Your task to perform on an android device: see tabs open on other devices in the chrome app Image 0: 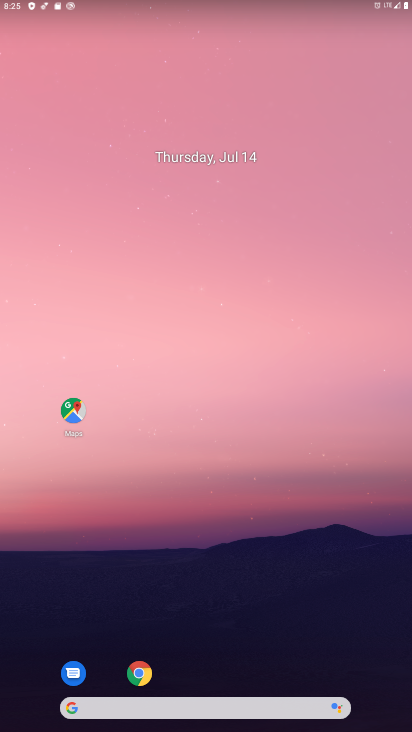
Step 0: click (142, 676)
Your task to perform on an android device: see tabs open on other devices in the chrome app Image 1: 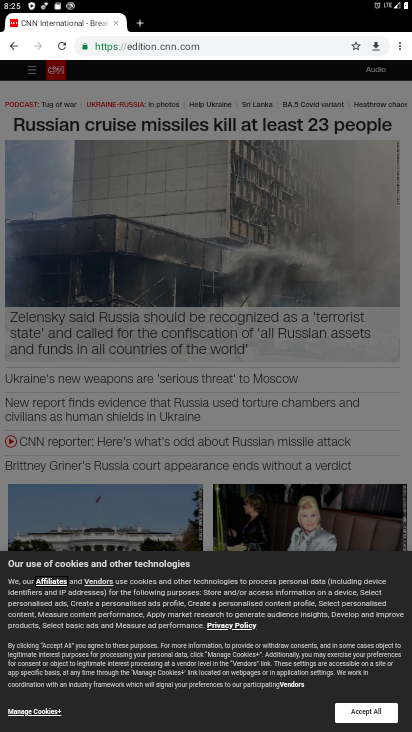
Step 1: click (401, 46)
Your task to perform on an android device: see tabs open on other devices in the chrome app Image 2: 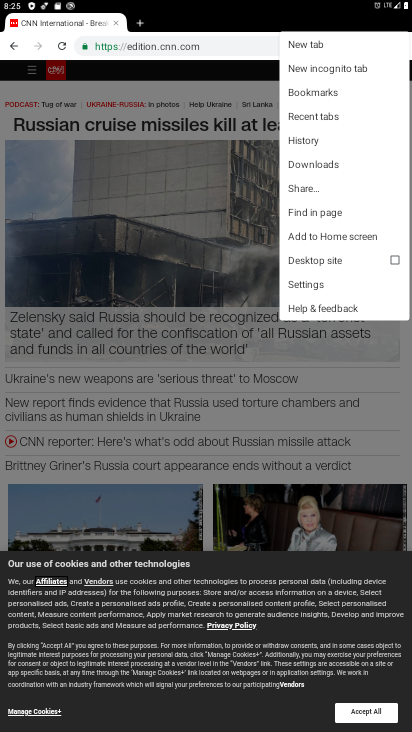
Step 2: click (336, 118)
Your task to perform on an android device: see tabs open on other devices in the chrome app Image 3: 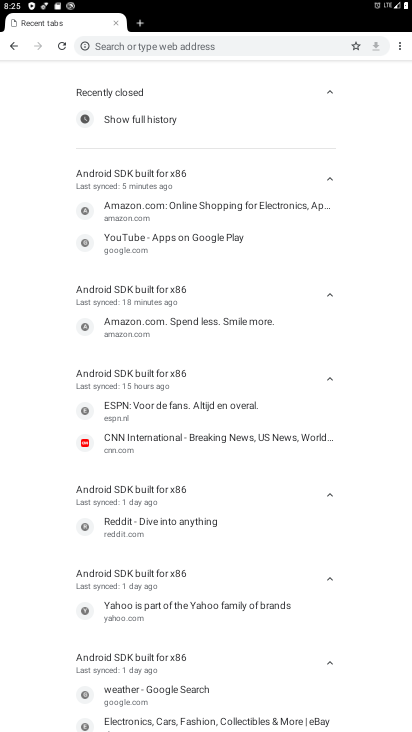
Step 3: task complete